Your task to perform on an android device: turn off airplane mode Image 0: 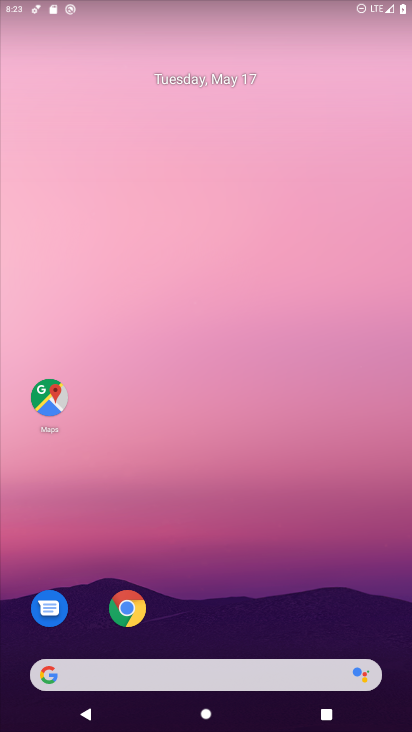
Step 0: drag from (214, 586) to (208, 12)
Your task to perform on an android device: turn off airplane mode Image 1: 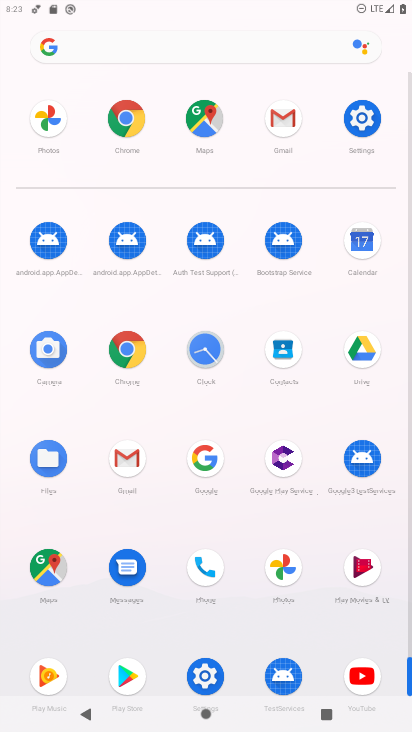
Step 1: click (355, 140)
Your task to perform on an android device: turn off airplane mode Image 2: 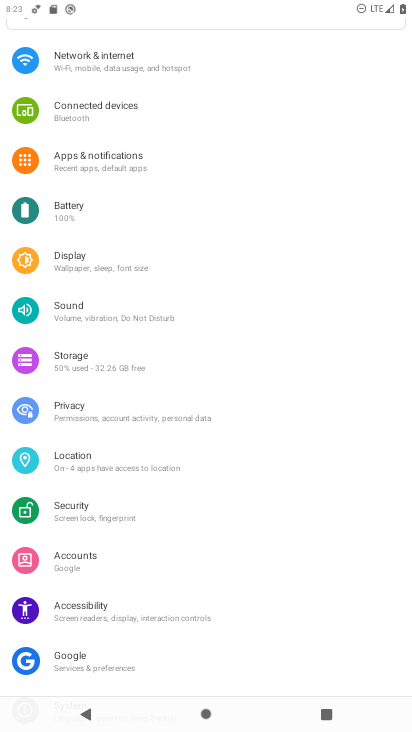
Step 2: drag from (156, 186) to (159, 417)
Your task to perform on an android device: turn off airplane mode Image 3: 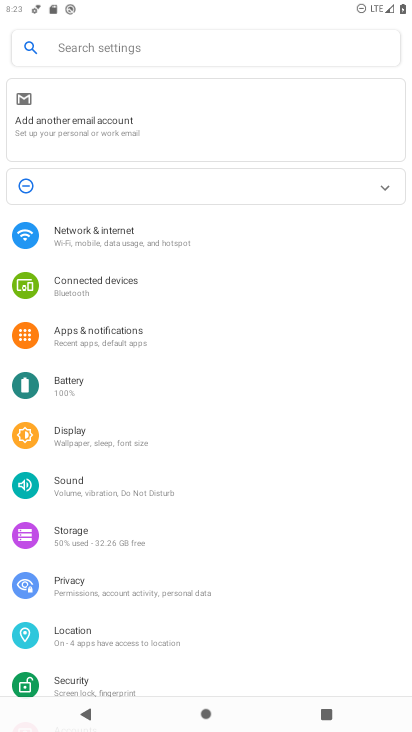
Step 3: click (135, 250)
Your task to perform on an android device: turn off airplane mode Image 4: 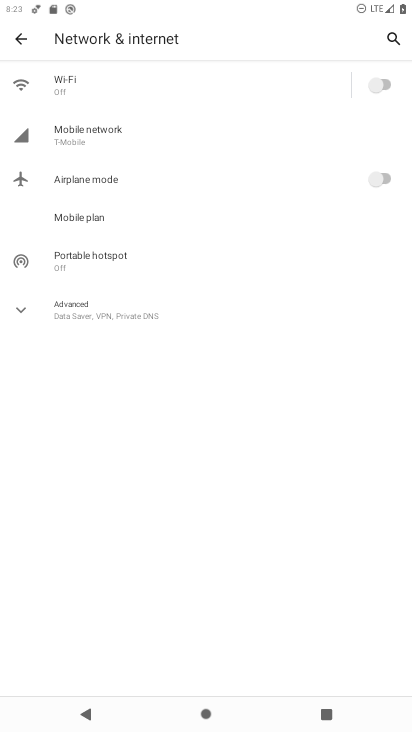
Step 4: task complete